Your task to perform on an android device: turn on the 24-hour format for clock Image 0: 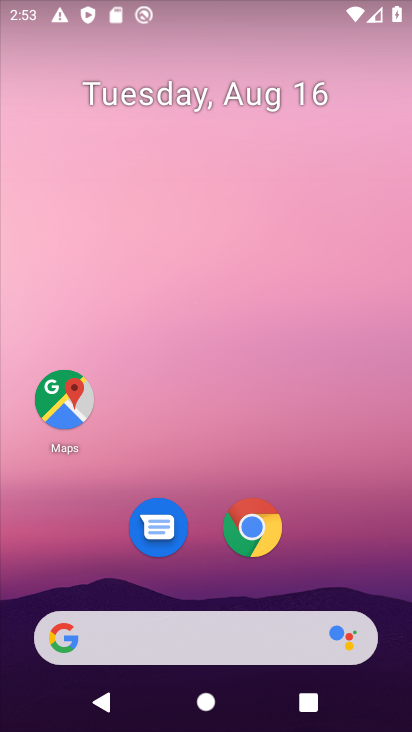
Step 0: drag from (209, 578) to (236, 103)
Your task to perform on an android device: turn on the 24-hour format for clock Image 1: 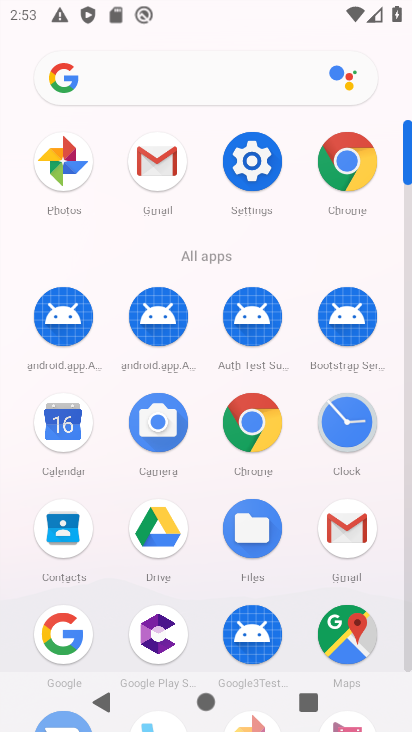
Step 1: click (337, 420)
Your task to perform on an android device: turn on the 24-hour format for clock Image 2: 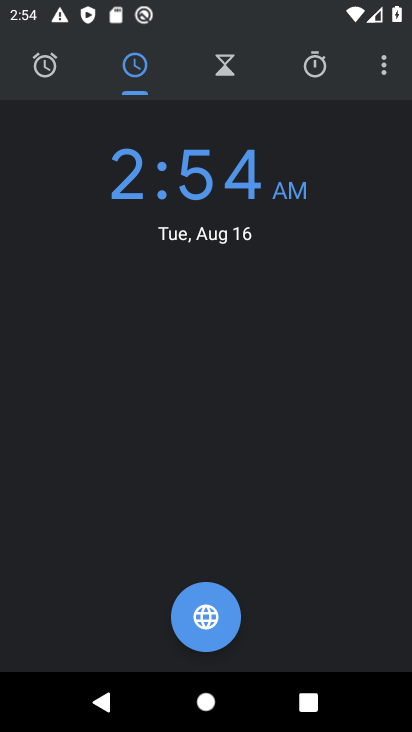
Step 2: click (381, 68)
Your task to perform on an android device: turn on the 24-hour format for clock Image 3: 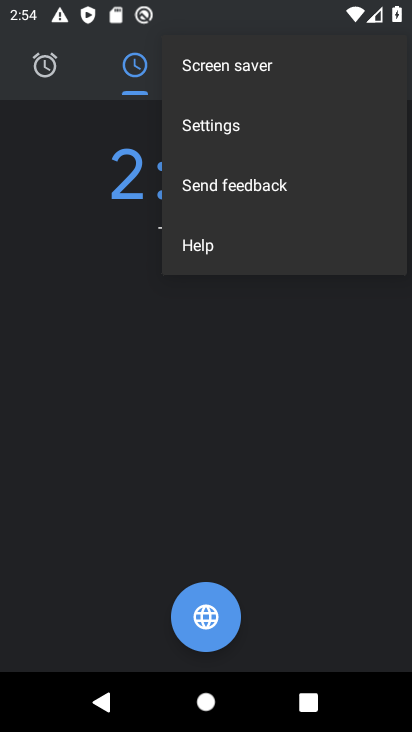
Step 3: click (243, 125)
Your task to perform on an android device: turn on the 24-hour format for clock Image 4: 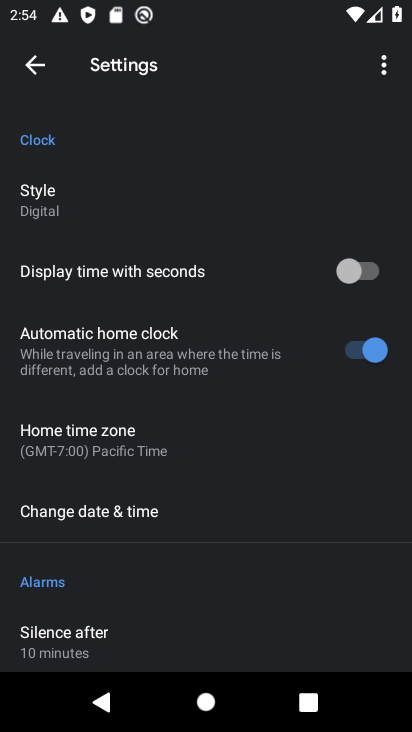
Step 4: click (153, 510)
Your task to perform on an android device: turn on the 24-hour format for clock Image 5: 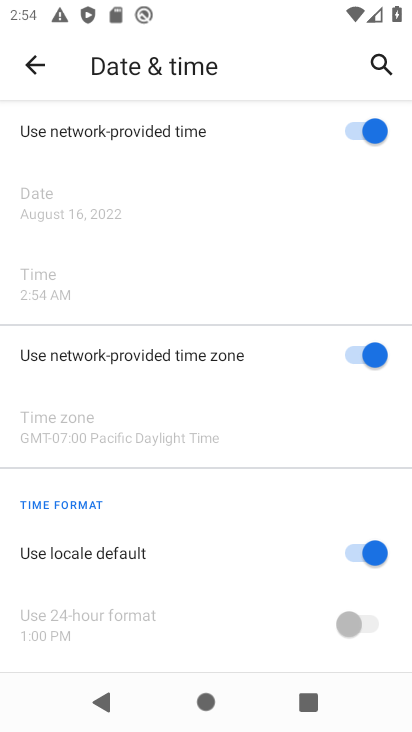
Step 5: click (363, 540)
Your task to perform on an android device: turn on the 24-hour format for clock Image 6: 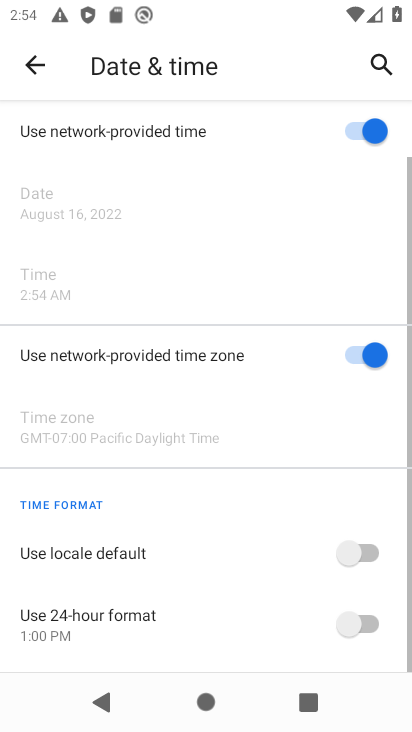
Step 6: click (356, 618)
Your task to perform on an android device: turn on the 24-hour format for clock Image 7: 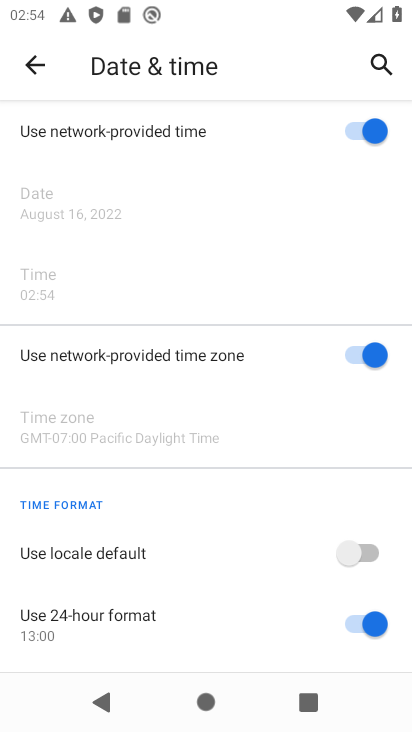
Step 7: task complete